Your task to perform on an android device: open a bookmark in the chrome app Image 0: 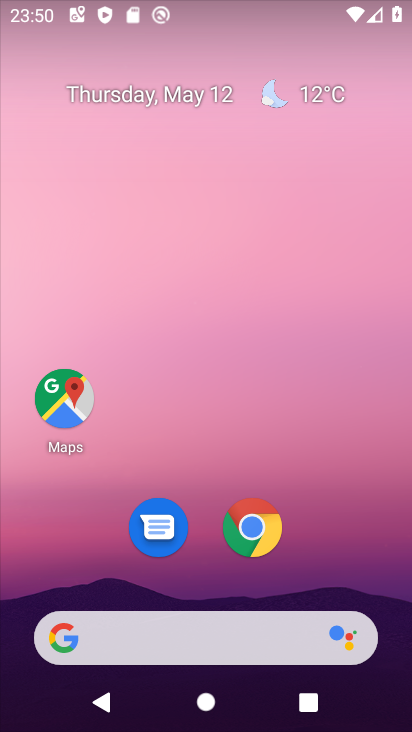
Step 0: click (255, 527)
Your task to perform on an android device: open a bookmark in the chrome app Image 1: 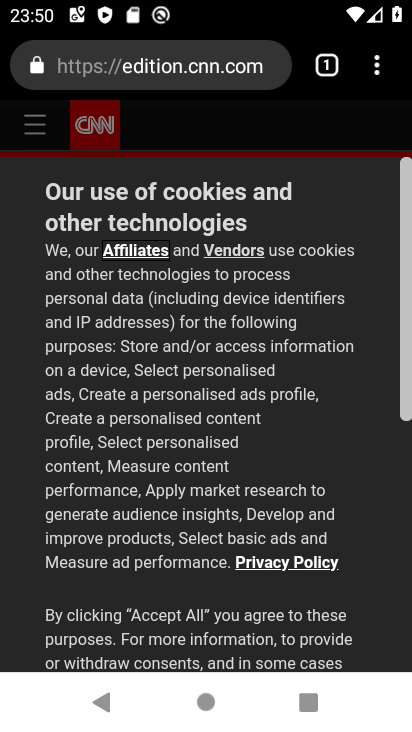
Step 1: click (376, 72)
Your task to perform on an android device: open a bookmark in the chrome app Image 2: 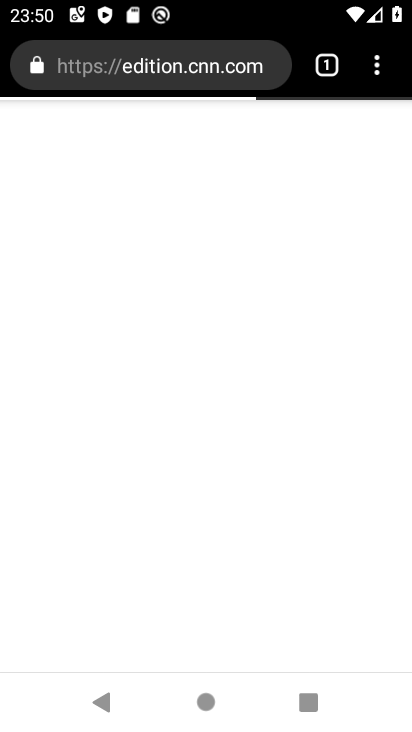
Step 2: click (368, 56)
Your task to perform on an android device: open a bookmark in the chrome app Image 3: 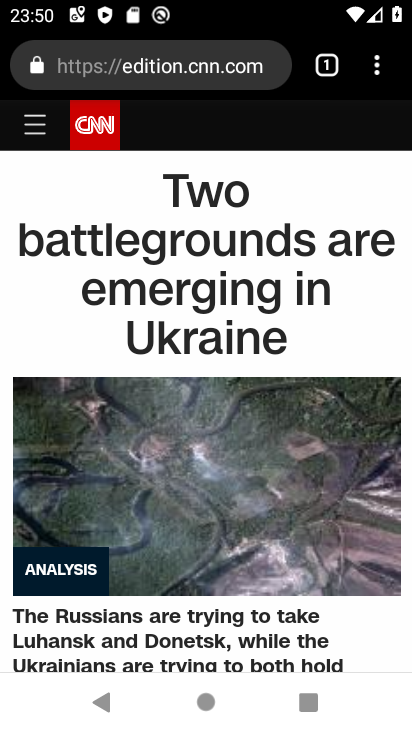
Step 3: click (392, 61)
Your task to perform on an android device: open a bookmark in the chrome app Image 4: 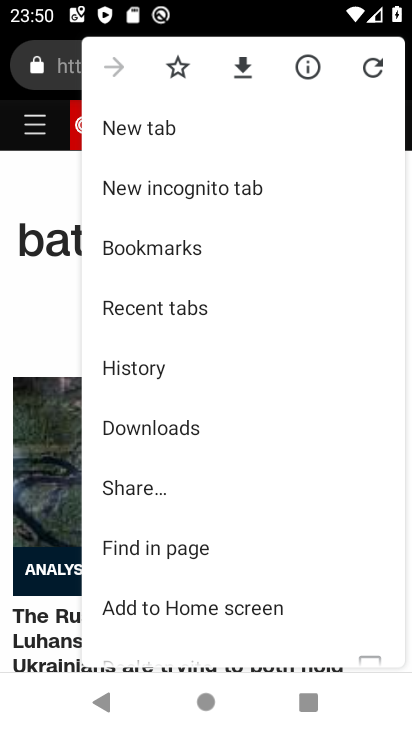
Step 4: click (185, 243)
Your task to perform on an android device: open a bookmark in the chrome app Image 5: 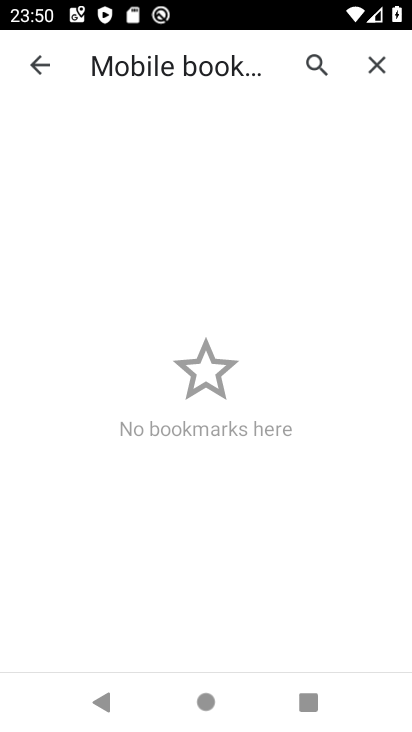
Step 5: task complete